Your task to perform on an android device: Do I have any events today? Image 0: 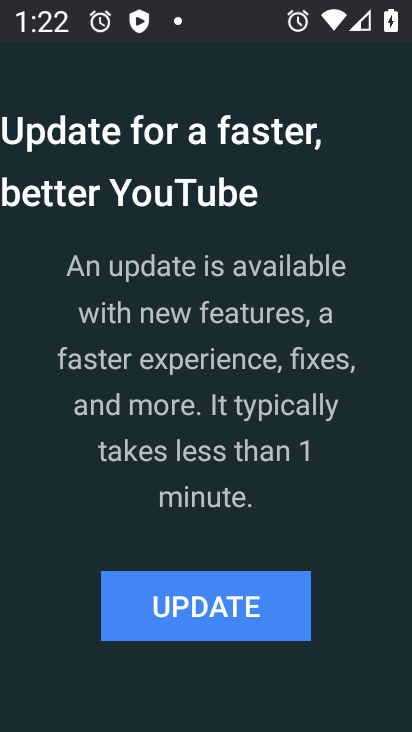
Step 0: press home button
Your task to perform on an android device: Do I have any events today? Image 1: 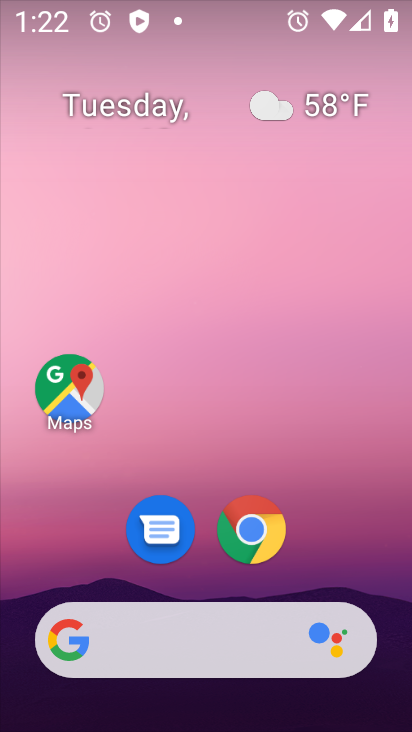
Step 1: drag from (188, 585) to (186, 95)
Your task to perform on an android device: Do I have any events today? Image 2: 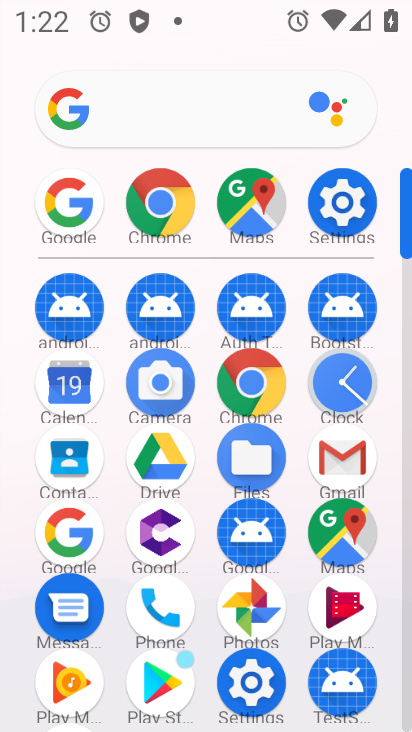
Step 2: click (65, 392)
Your task to perform on an android device: Do I have any events today? Image 3: 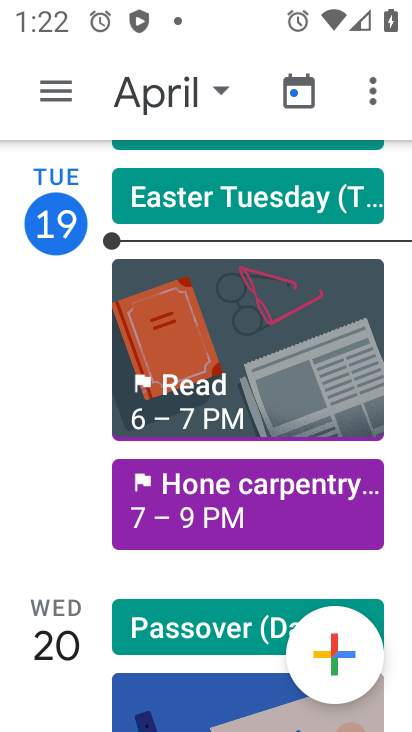
Step 3: click (207, 94)
Your task to perform on an android device: Do I have any events today? Image 4: 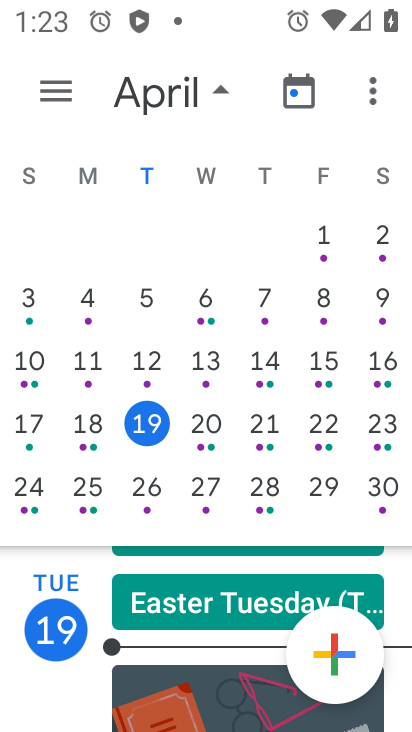
Step 4: task complete